Your task to perform on an android device: change the upload size in google photos Image 0: 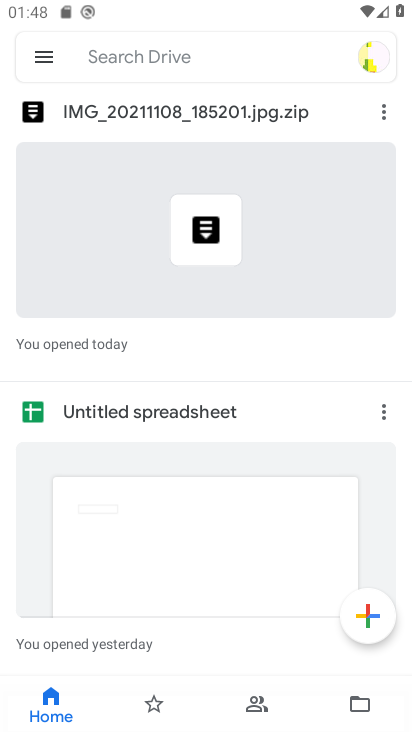
Step 0: press home button
Your task to perform on an android device: change the upload size in google photos Image 1: 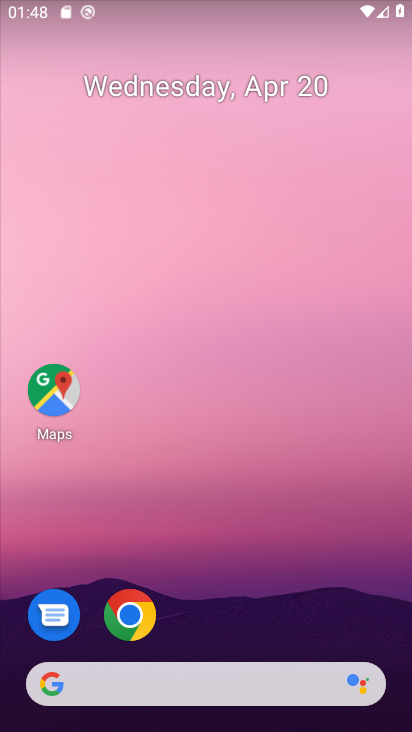
Step 1: drag from (298, 500) to (268, 130)
Your task to perform on an android device: change the upload size in google photos Image 2: 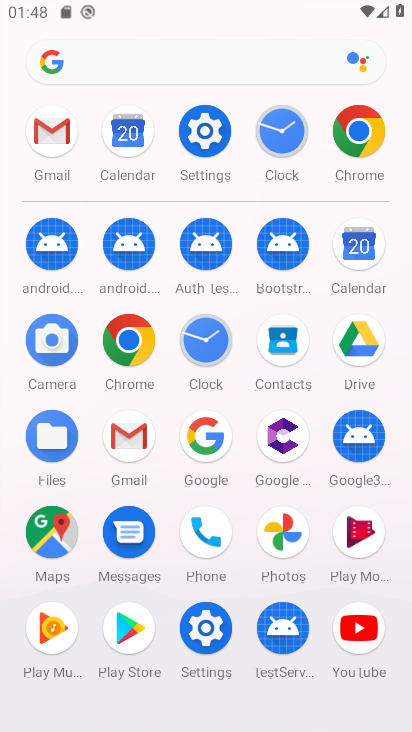
Step 2: click (276, 534)
Your task to perform on an android device: change the upload size in google photos Image 3: 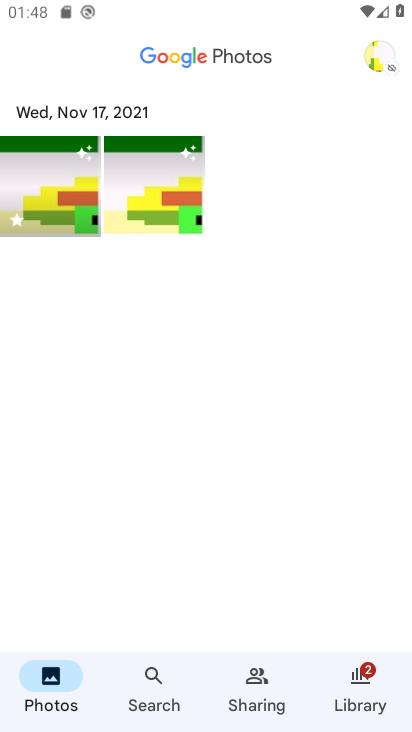
Step 3: click (382, 59)
Your task to perform on an android device: change the upload size in google photos Image 4: 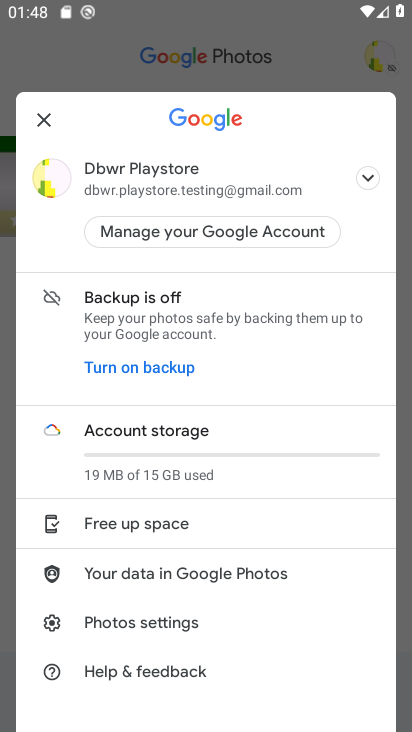
Step 4: click (129, 300)
Your task to perform on an android device: change the upload size in google photos Image 5: 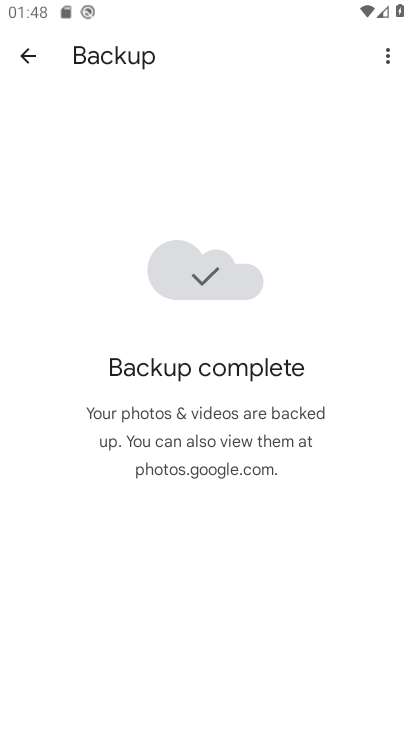
Step 5: click (384, 52)
Your task to perform on an android device: change the upload size in google photos Image 6: 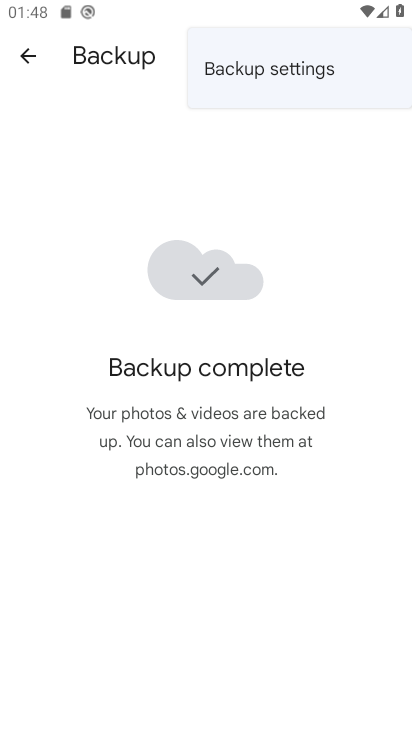
Step 6: click (282, 77)
Your task to perform on an android device: change the upload size in google photos Image 7: 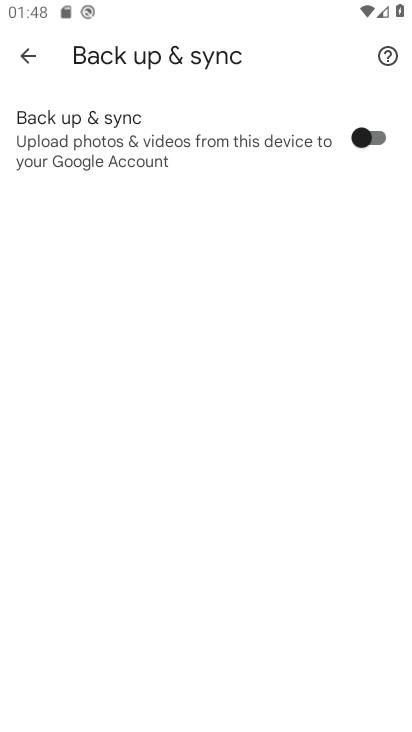
Step 7: click (103, 140)
Your task to perform on an android device: change the upload size in google photos Image 8: 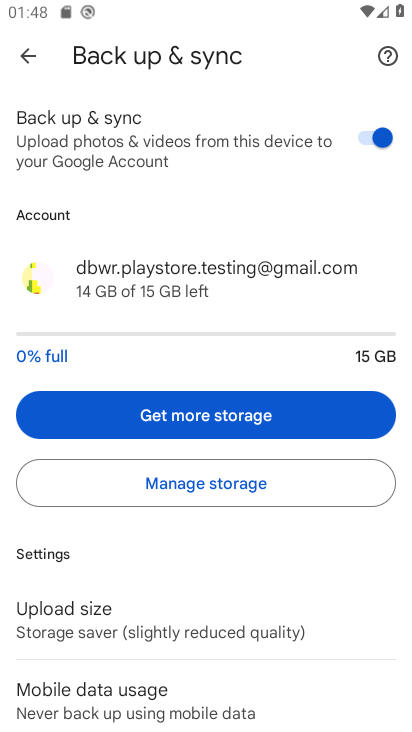
Step 8: drag from (169, 482) to (167, 335)
Your task to perform on an android device: change the upload size in google photos Image 9: 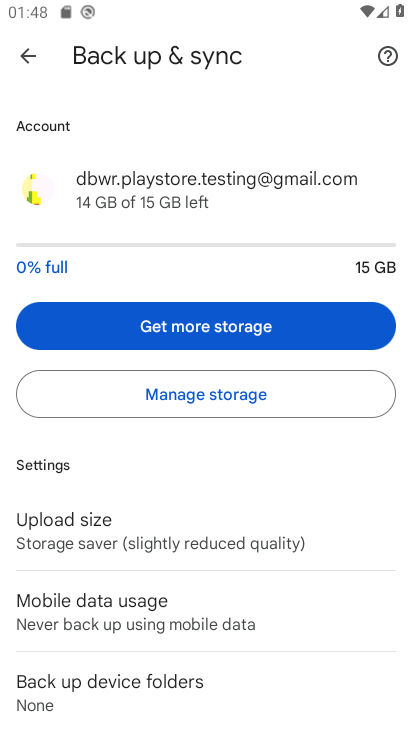
Step 9: click (70, 518)
Your task to perform on an android device: change the upload size in google photos Image 10: 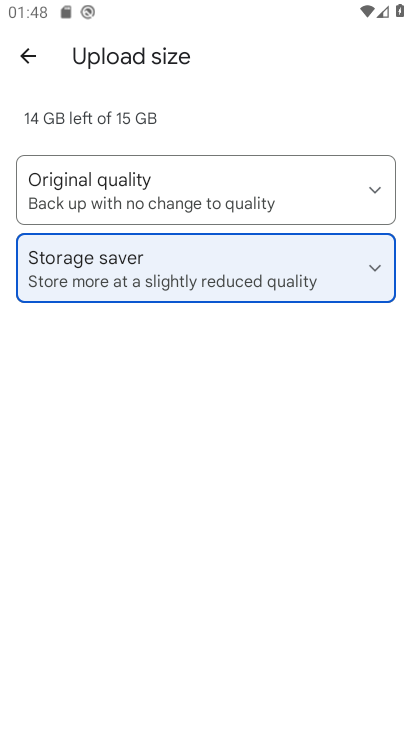
Step 10: click (123, 185)
Your task to perform on an android device: change the upload size in google photos Image 11: 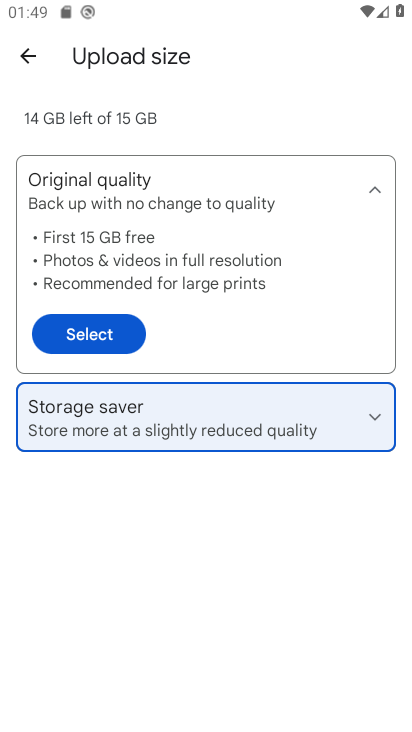
Step 11: click (105, 334)
Your task to perform on an android device: change the upload size in google photos Image 12: 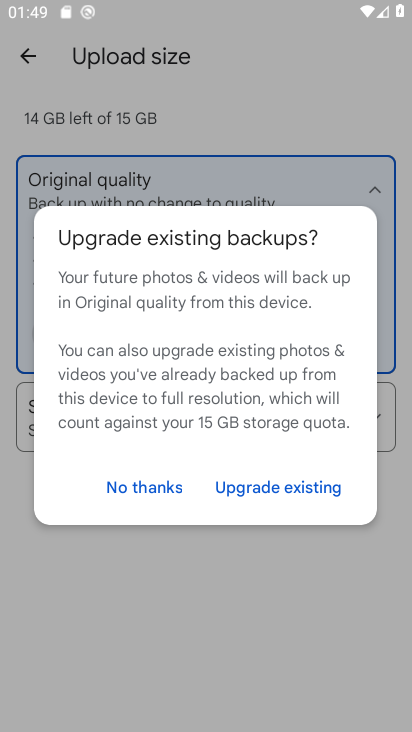
Step 12: click (244, 484)
Your task to perform on an android device: change the upload size in google photos Image 13: 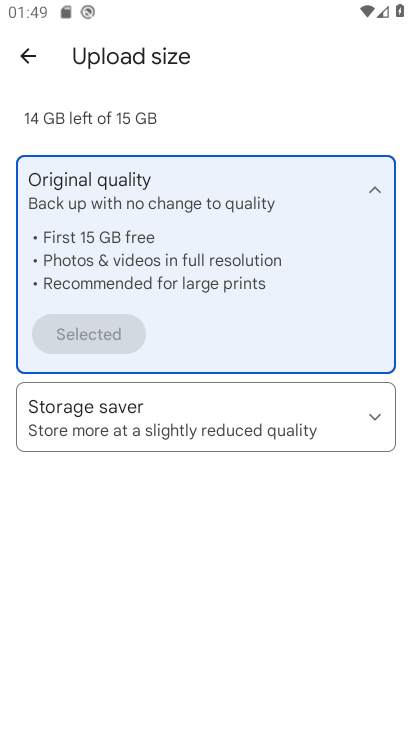
Step 13: task complete